Your task to perform on an android device: Open the phone app and click the voicemail tab. Image 0: 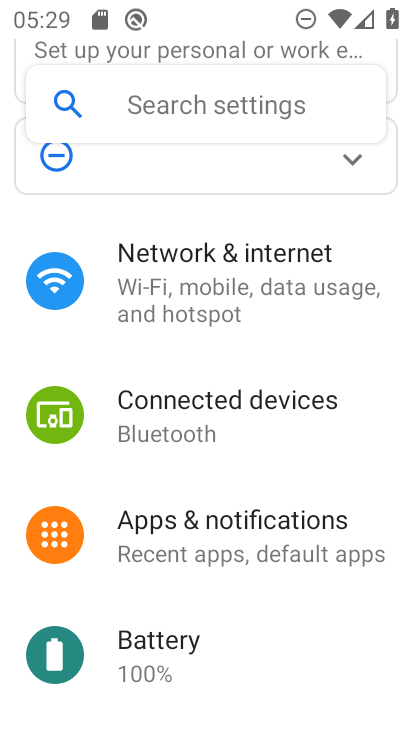
Step 0: press back button
Your task to perform on an android device: Open the phone app and click the voicemail tab. Image 1: 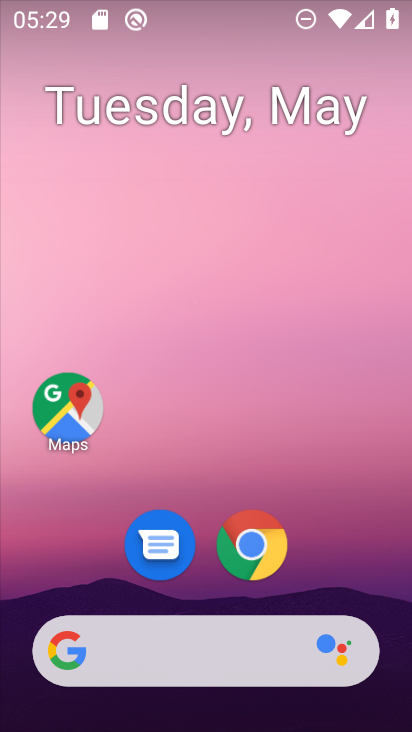
Step 1: drag from (348, 534) to (252, 59)
Your task to perform on an android device: Open the phone app and click the voicemail tab. Image 2: 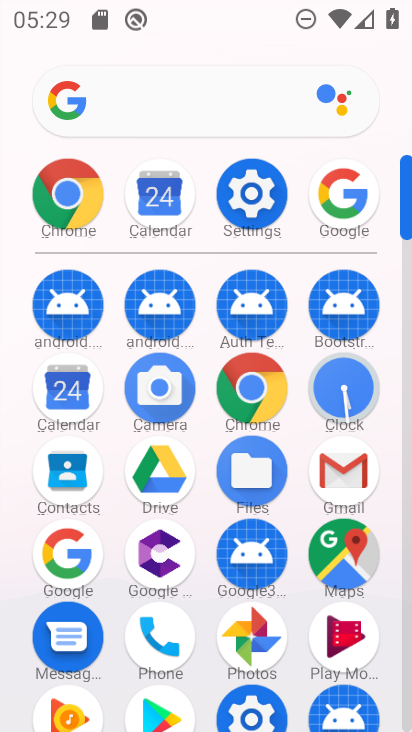
Step 2: drag from (0, 622) to (23, 319)
Your task to perform on an android device: Open the phone app and click the voicemail tab. Image 3: 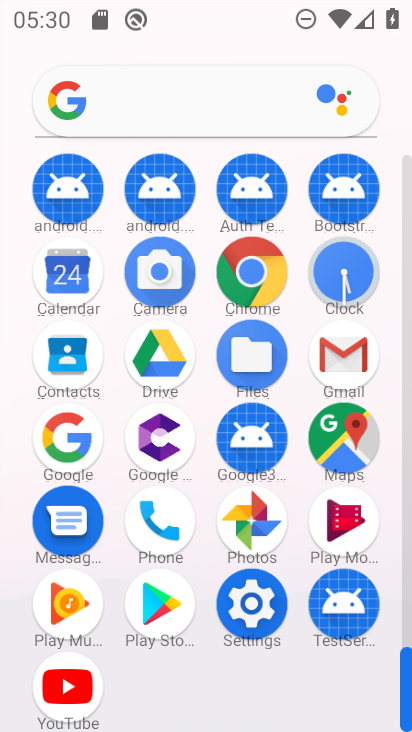
Step 3: drag from (15, 577) to (15, 323)
Your task to perform on an android device: Open the phone app and click the voicemail tab. Image 4: 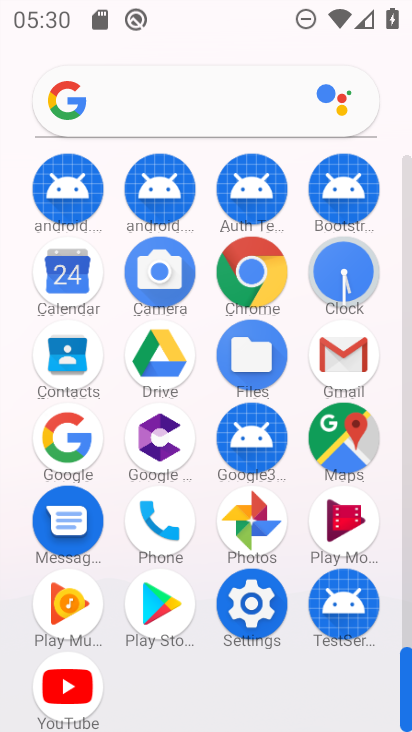
Step 4: click (156, 511)
Your task to perform on an android device: Open the phone app and click the voicemail tab. Image 5: 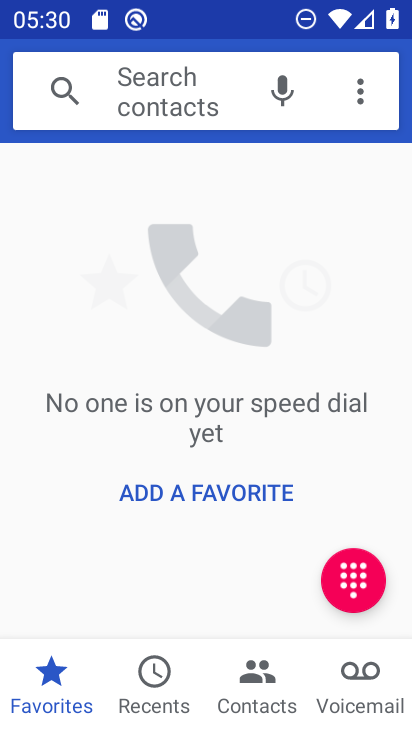
Step 5: click (340, 687)
Your task to perform on an android device: Open the phone app and click the voicemail tab. Image 6: 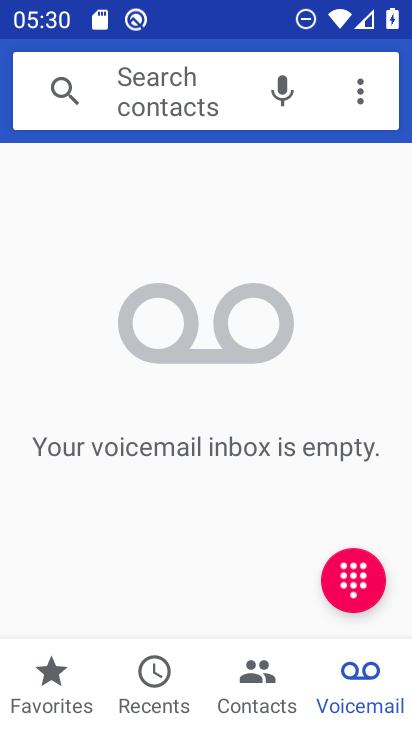
Step 6: task complete